Your task to perform on an android device: When is my next meeting? Image 0: 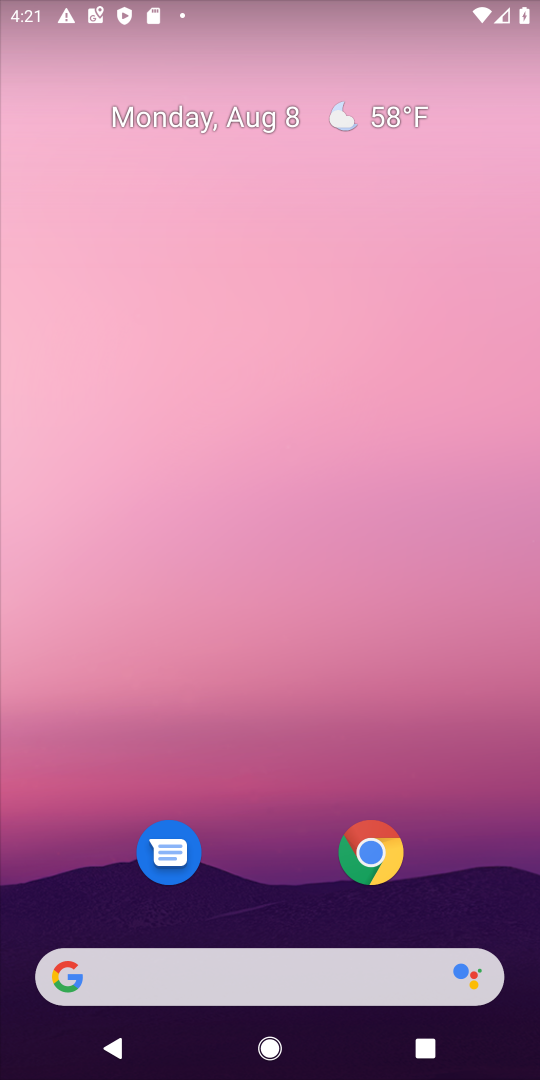
Step 0: drag from (238, 654) to (374, 107)
Your task to perform on an android device: When is my next meeting? Image 1: 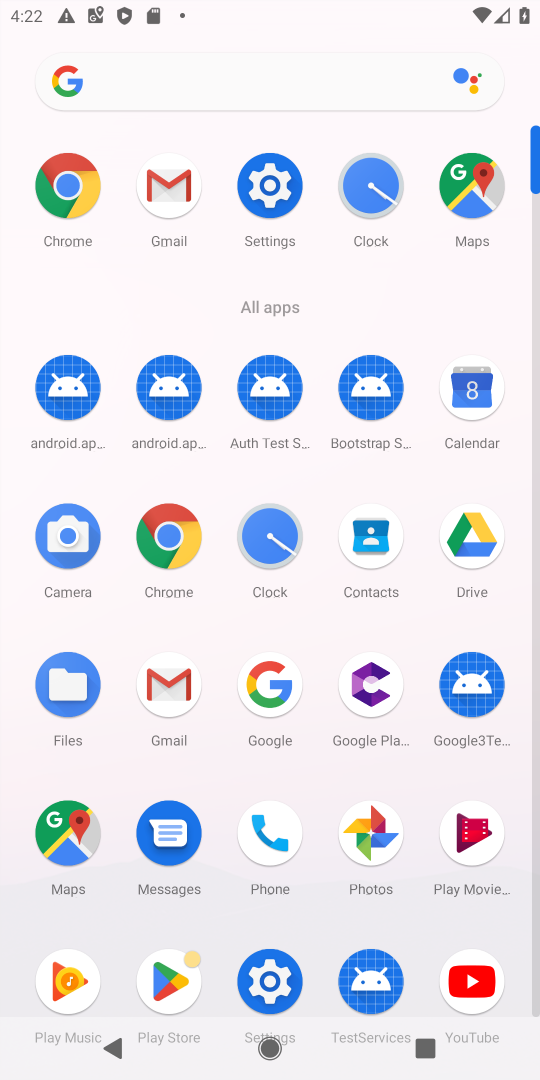
Step 1: click (471, 395)
Your task to perform on an android device: When is my next meeting? Image 2: 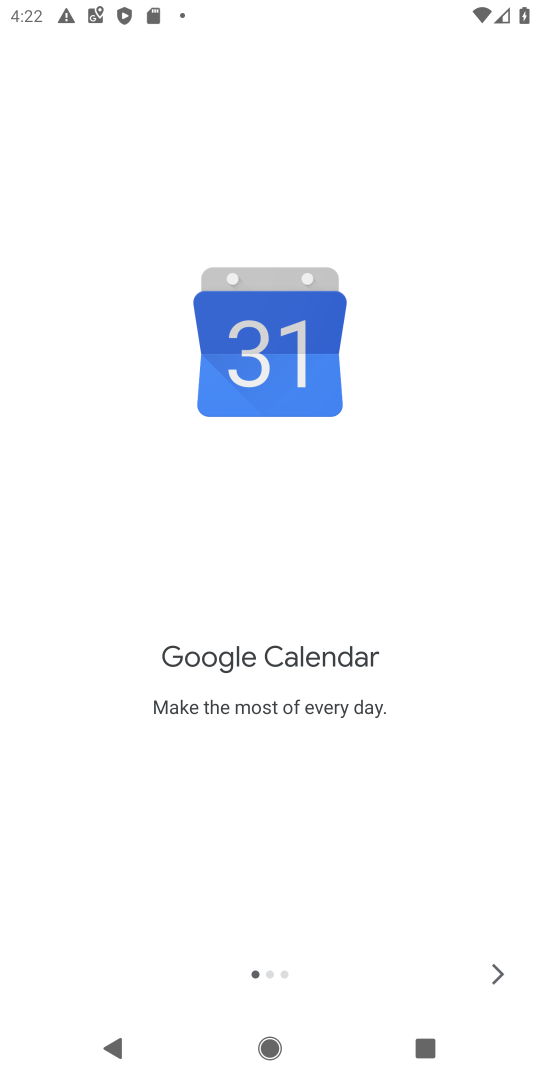
Step 2: click (474, 984)
Your task to perform on an android device: When is my next meeting? Image 3: 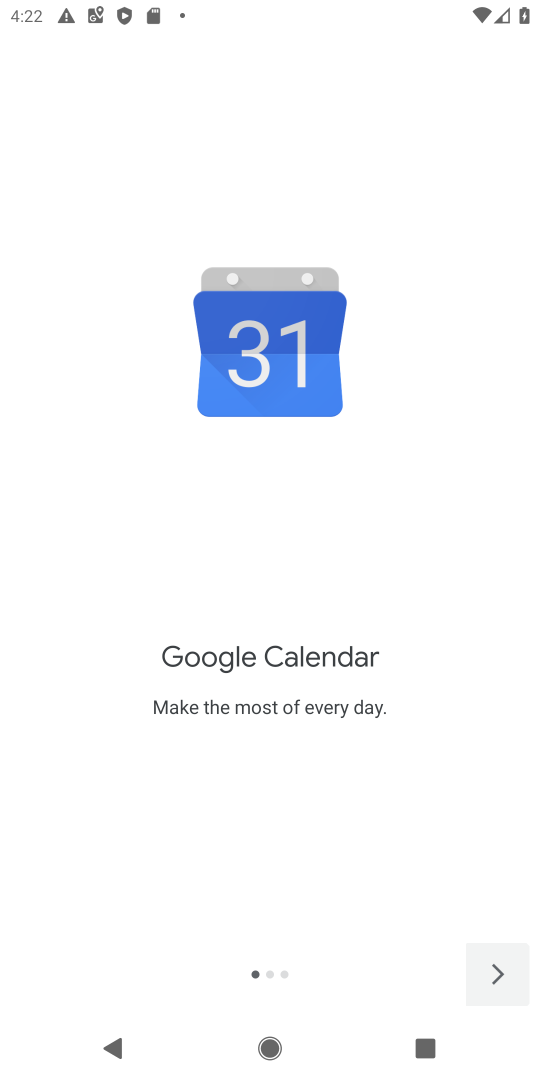
Step 3: click (474, 984)
Your task to perform on an android device: When is my next meeting? Image 4: 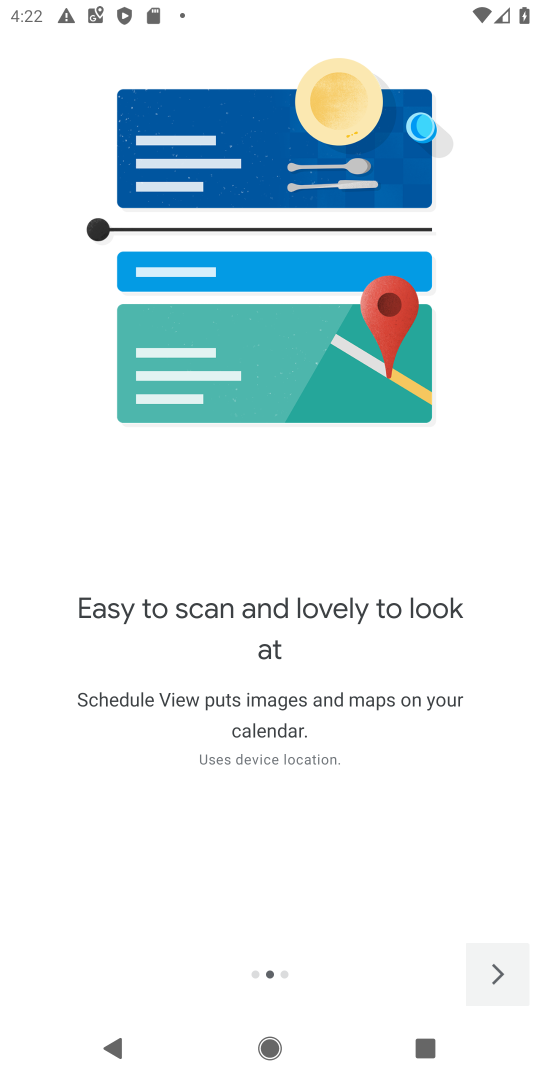
Step 4: click (474, 984)
Your task to perform on an android device: When is my next meeting? Image 5: 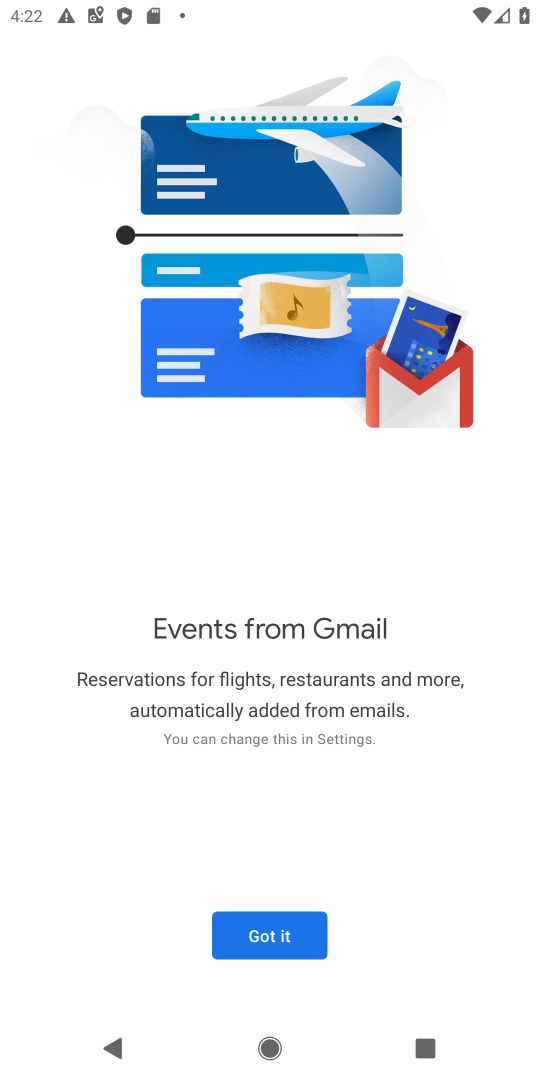
Step 5: click (272, 953)
Your task to perform on an android device: When is my next meeting? Image 6: 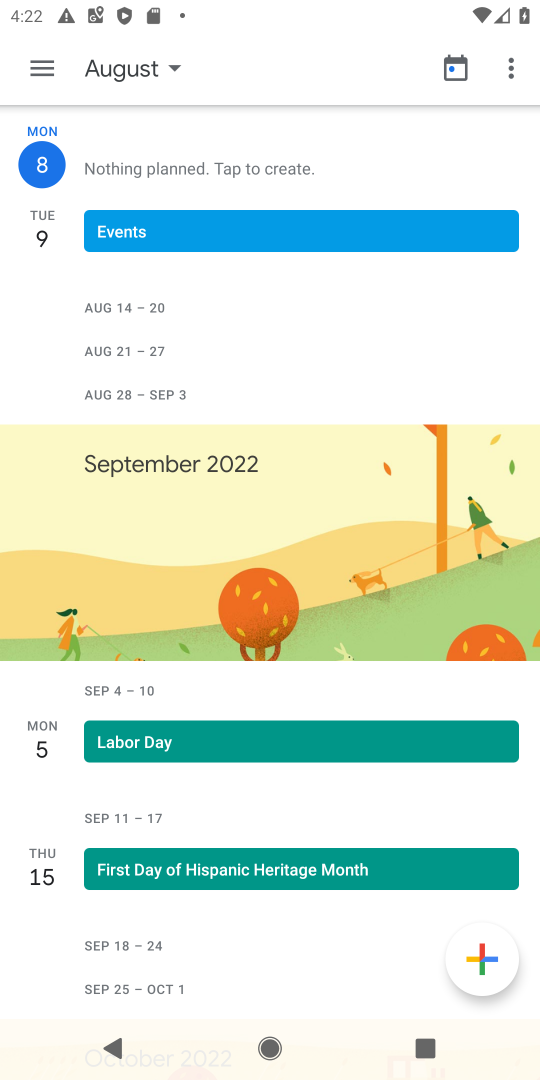
Step 6: click (46, 240)
Your task to perform on an android device: When is my next meeting? Image 7: 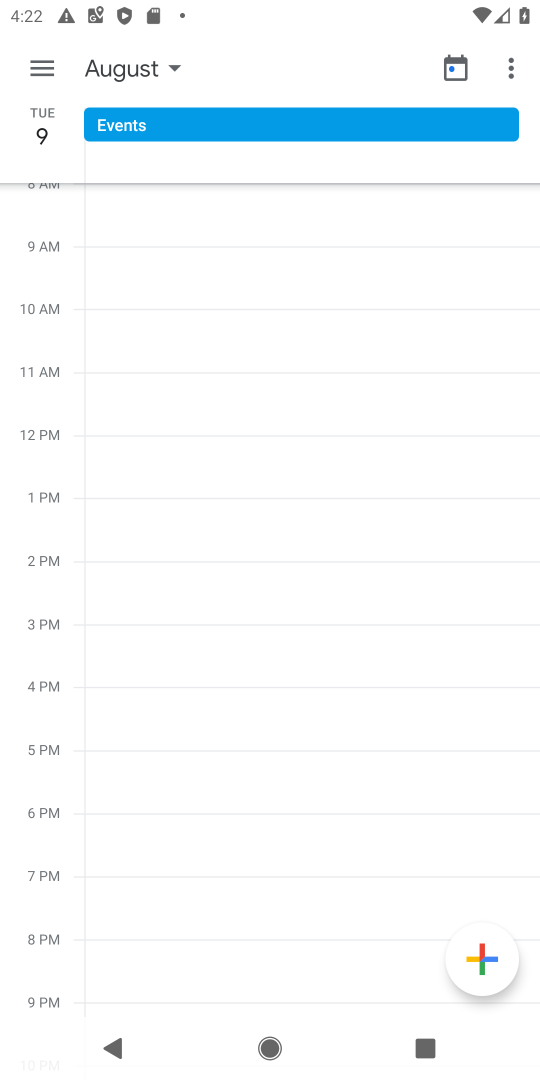
Step 7: task complete